Your task to perform on an android device: choose inbox layout in the gmail app Image 0: 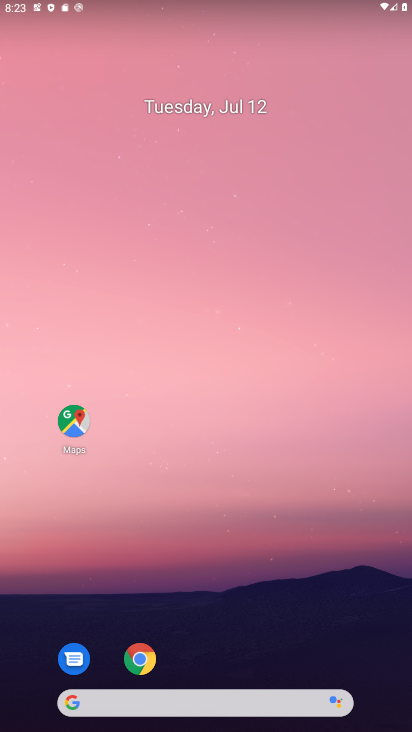
Step 0: drag from (175, 702) to (182, 114)
Your task to perform on an android device: choose inbox layout in the gmail app Image 1: 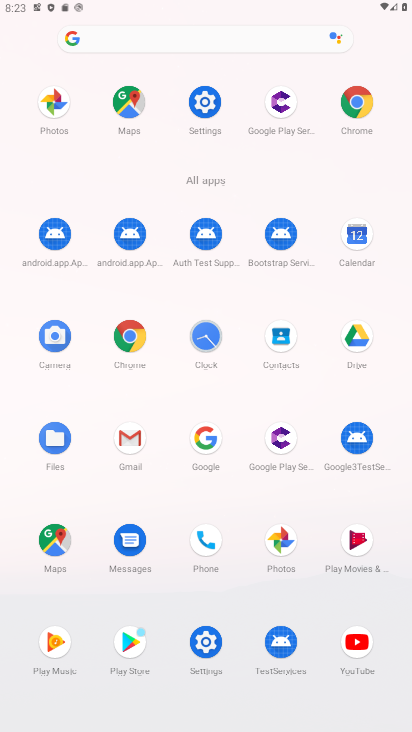
Step 1: click (128, 437)
Your task to perform on an android device: choose inbox layout in the gmail app Image 2: 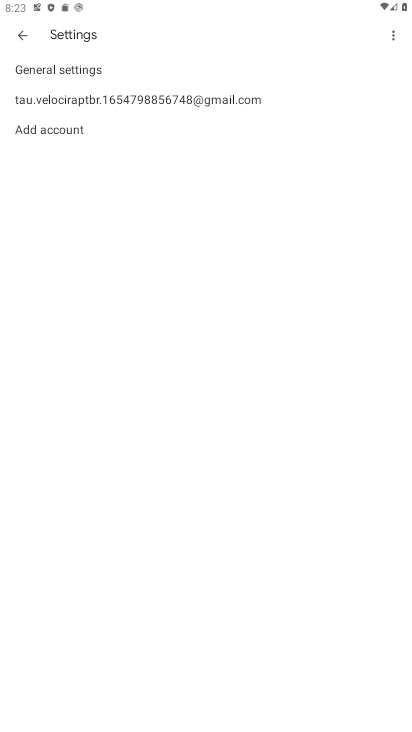
Step 2: click (158, 97)
Your task to perform on an android device: choose inbox layout in the gmail app Image 3: 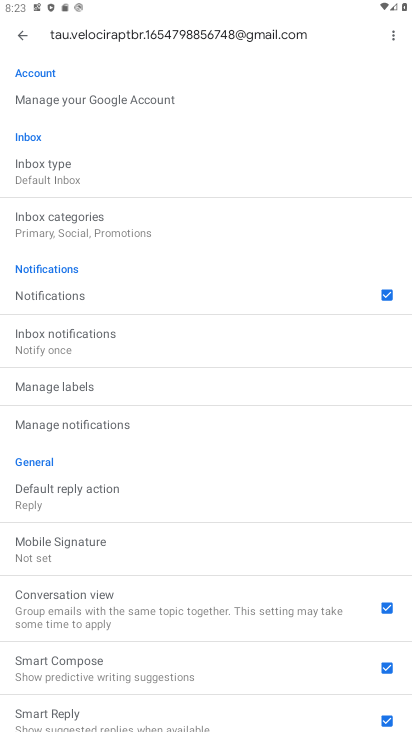
Step 3: click (77, 177)
Your task to perform on an android device: choose inbox layout in the gmail app Image 4: 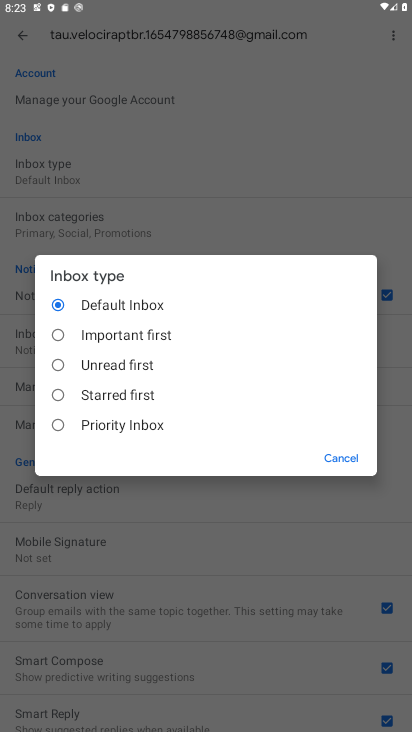
Step 4: click (124, 336)
Your task to perform on an android device: choose inbox layout in the gmail app Image 5: 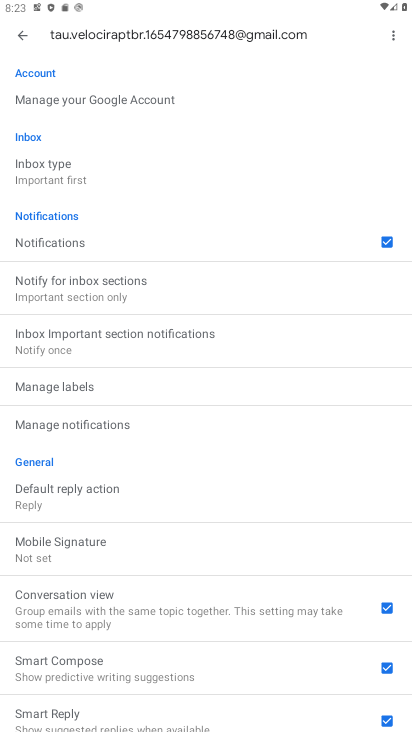
Step 5: task complete